Your task to perform on an android device: make emails show in primary in the gmail app Image 0: 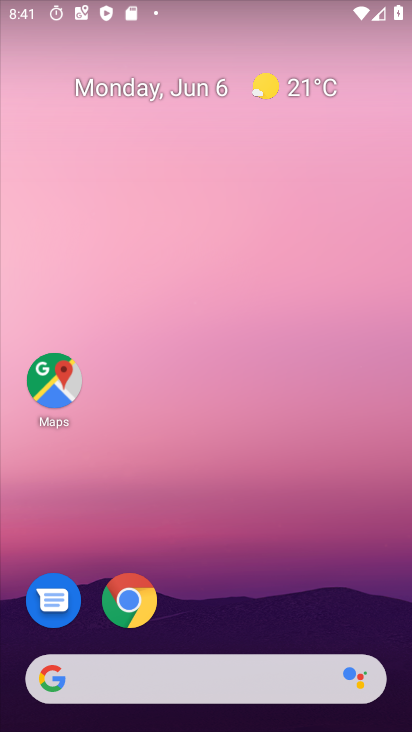
Step 0: drag from (290, 558) to (243, 46)
Your task to perform on an android device: make emails show in primary in the gmail app Image 1: 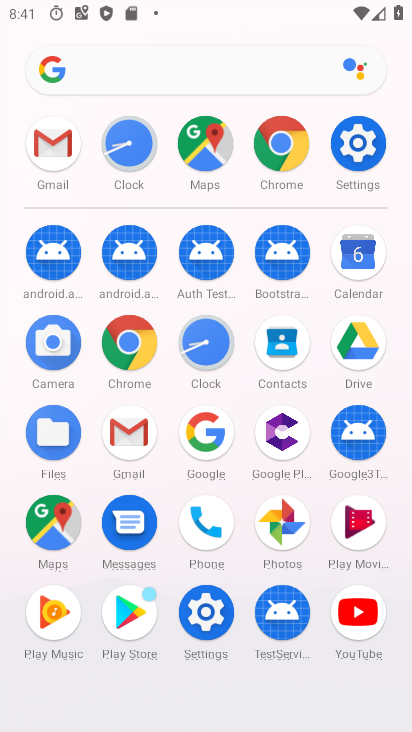
Step 1: drag from (17, 573) to (10, 259)
Your task to perform on an android device: make emails show in primary in the gmail app Image 2: 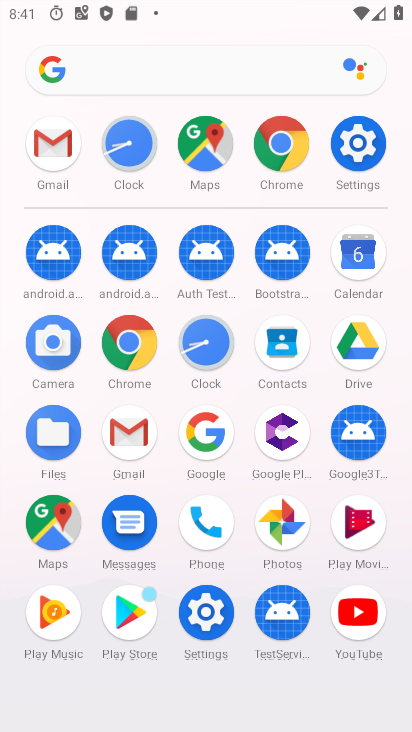
Step 2: click (130, 427)
Your task to perform on an android device: make emails show in primary in the gmail app Image 3: 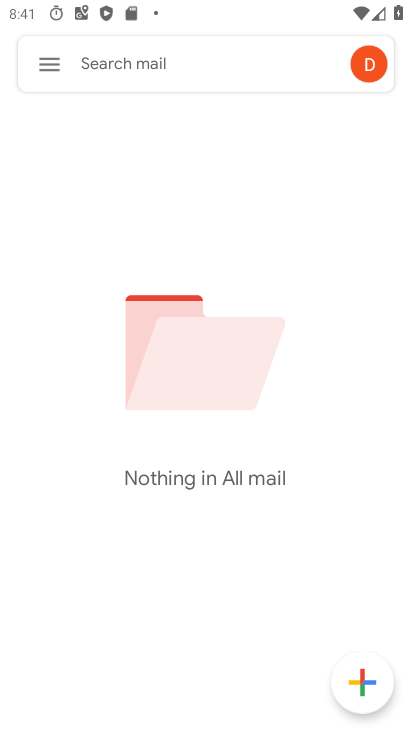
Step 3: click (60, 57)
Your task to perform on an android device: make emails show in primary in the gmail app Image 4: 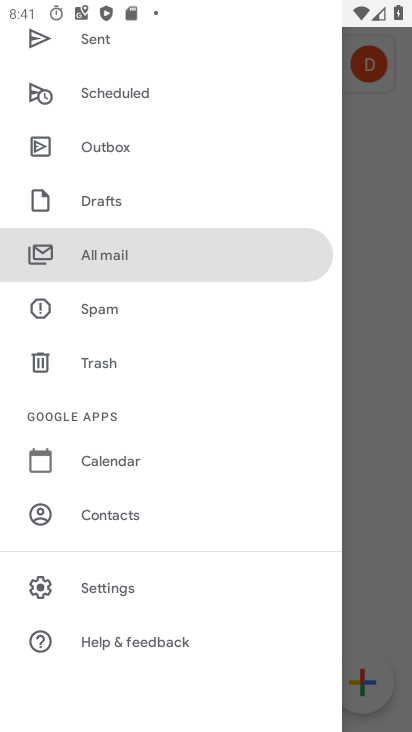
Step 4: click (132, 582)
Your task to perform on an android device: make emails show in primary in the gmail app Image 5: 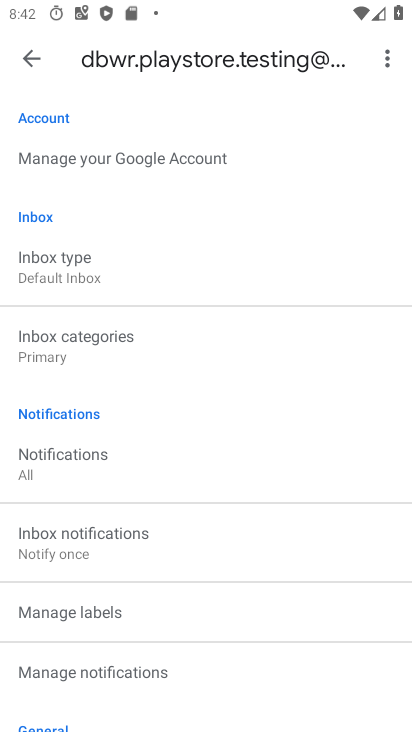
Step 5: click (137, 265)
Your task to perform on an android device: make emails show in primary in the gmail app Image 6: 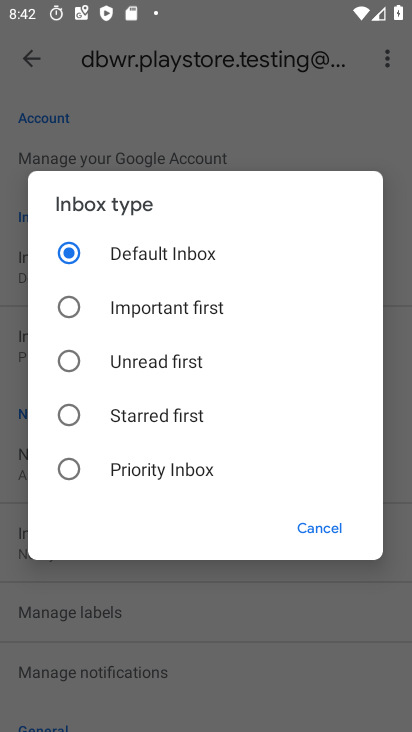
Step 6: click (215, 239)
Your task to perform on an android device: make emails show in primary in the gmail app Image 7: 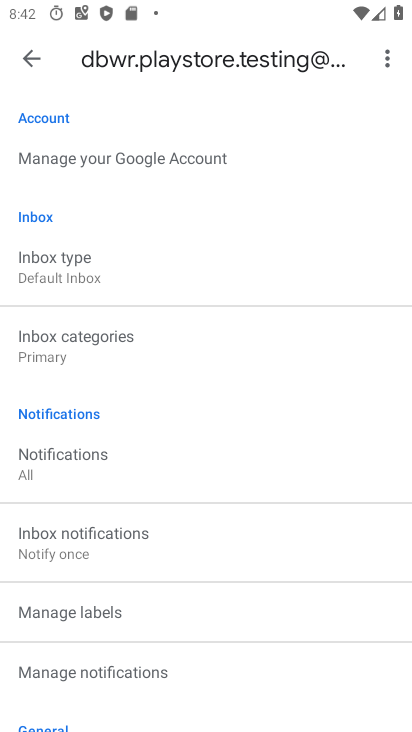
Step 7: click (141, 350)
Your task to perform on an android device: make emails show in primary in the gmail app Image 8: 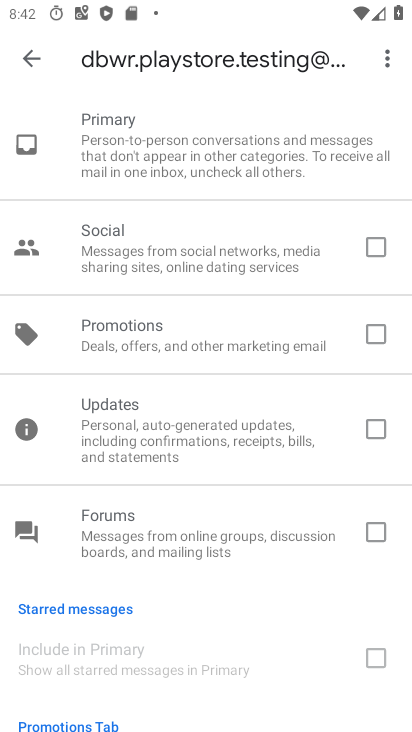
Step 8: click (30, 40)
Your task to perform on an android device: make emails show in primary in the gmail app Image 9: 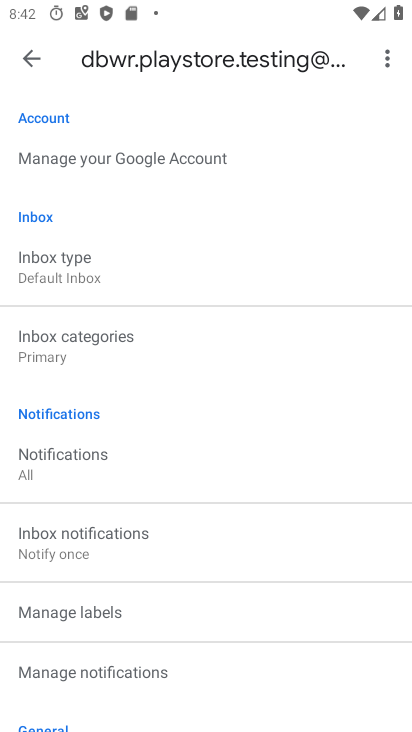
Step 9: task complete